Your task to perform on an android device: Open maps Image 0: 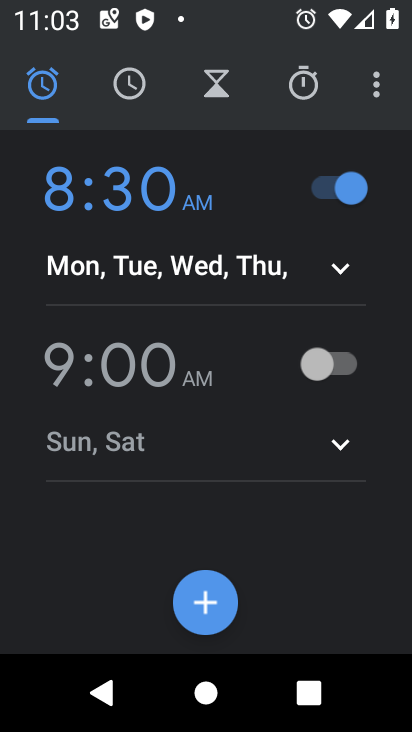
Step 0: press home button
Your task to perform on an android device: Open maps Image 1: 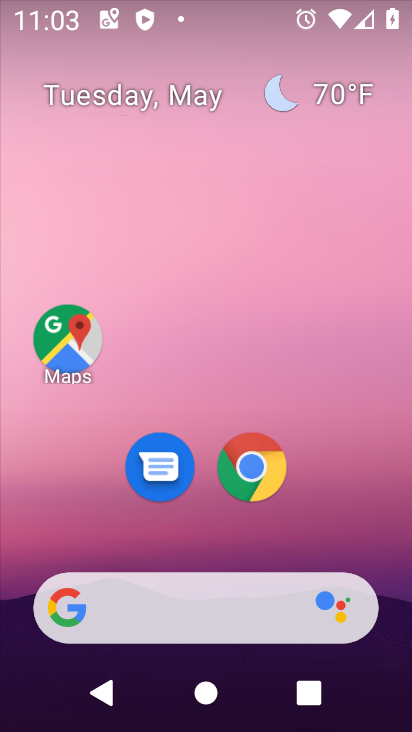
Step 1: click (52, 351)
Your task to perform on an android device: Open maps Image 2: 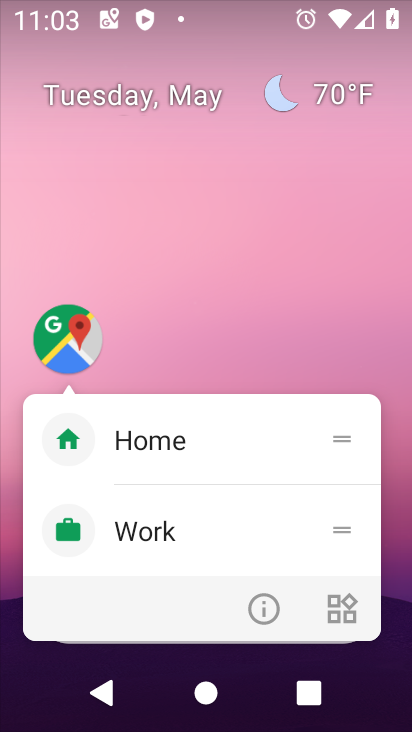
Step 2: click (69, 345)
Your task to perform on an android device: Open maps Image 3: 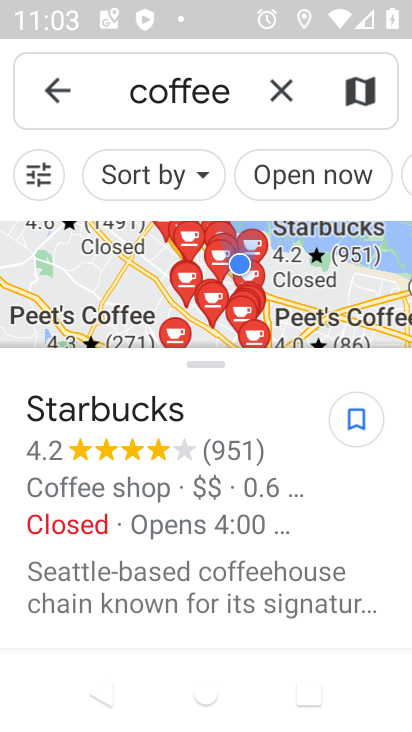
Step 3: task complete